Your task to perform on an android device: Is it going to rain tomorrow? Image 0: 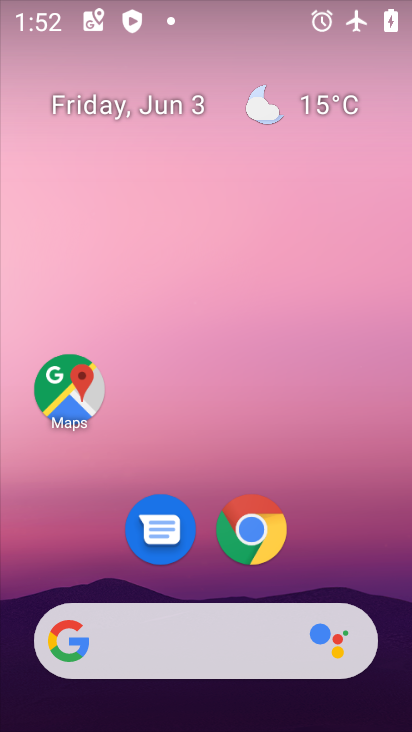
Step 0: click (291, 108)
Your task to perform on an android device: Is it going to rain tomorrow? Image 1: 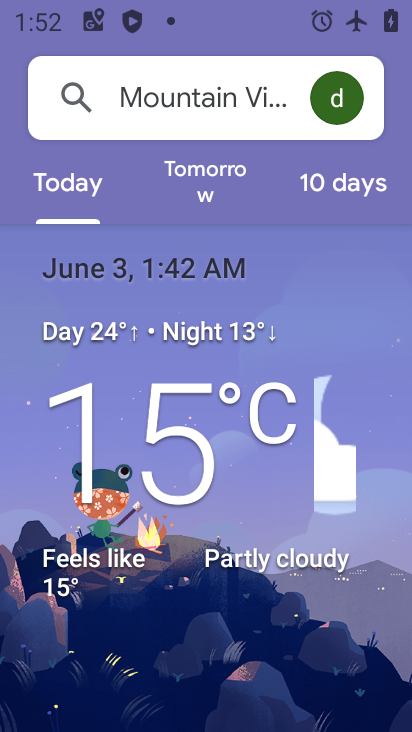
Step 1: click (211, 188)
Your task to perform on an android device: Is it going to rain tomorrow? Image 2: 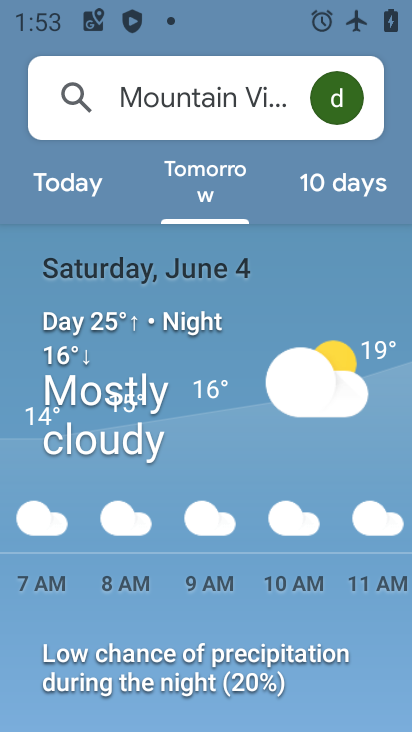
Step 2: task complete